Your task to perform on an android device: turn off data saver in the chrome app Image 0: 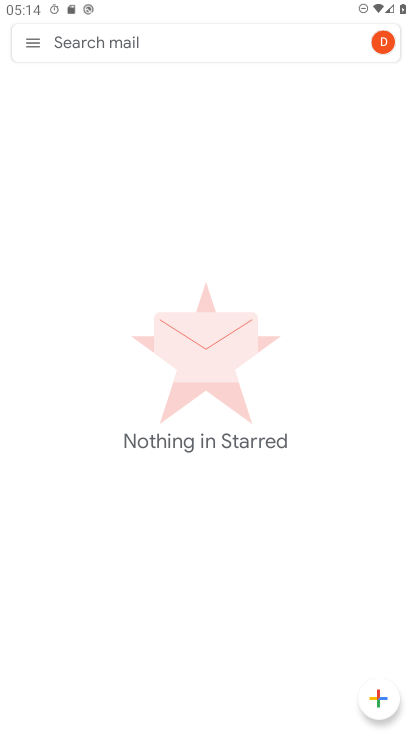
Step 0: press home button
Your task to perform on an android device: turn off data saver in the chrome app Image 1: 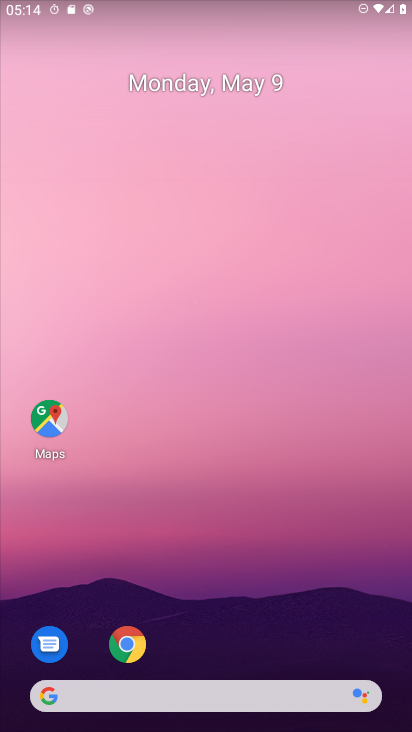
Step 1: click (125, 643)
Your task to perform on an android device: turn off data saver in the chrome app Image 2: 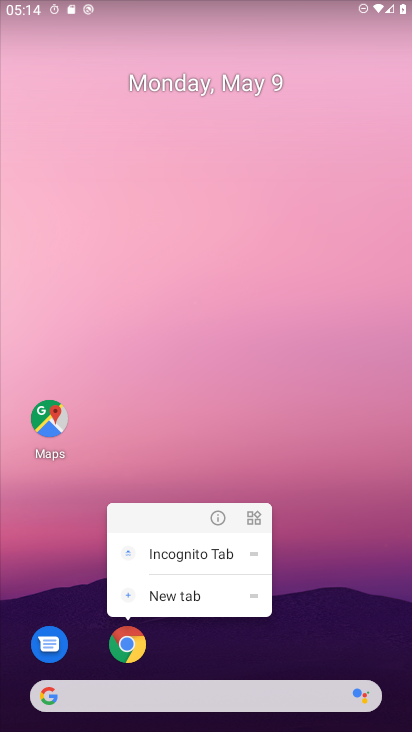
Step 2: click (132, 642)
Your task to perform on an android device: turn off data saver in the chrome app Image 3: 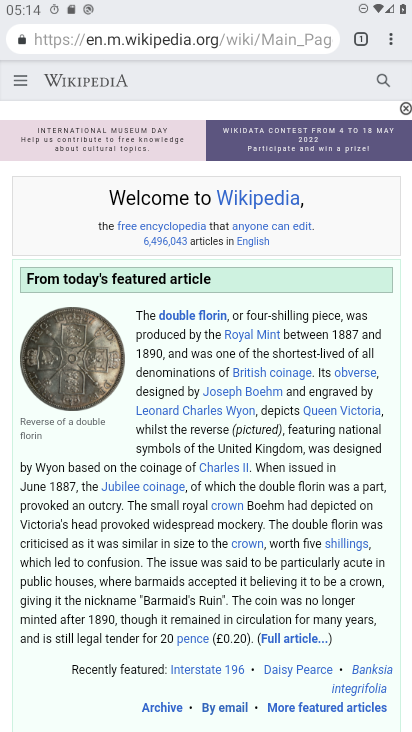
Step 3: click (391, 39)
Your task to perform on an android device: turn off data saver in the chrome app Image 4: 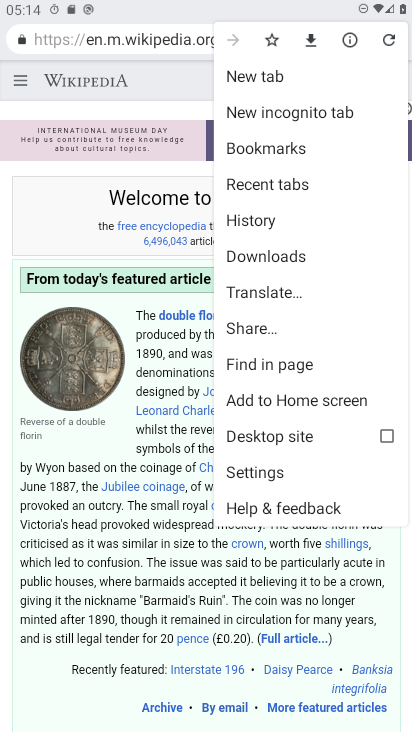
Step 4: click (272, 468)
Your task to perform on an android device: turn off data saver in the chrome app Image 5: 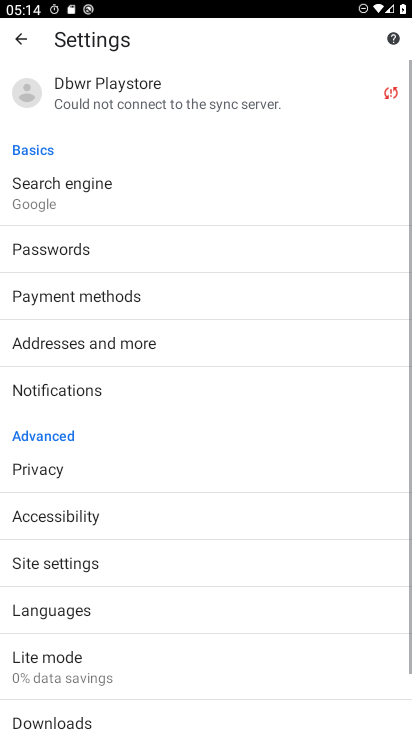
Step 5: drag from (166, 643) to (243, 392)
Your task to perform on an android device: turn off data saver in the chrome app Image 6: 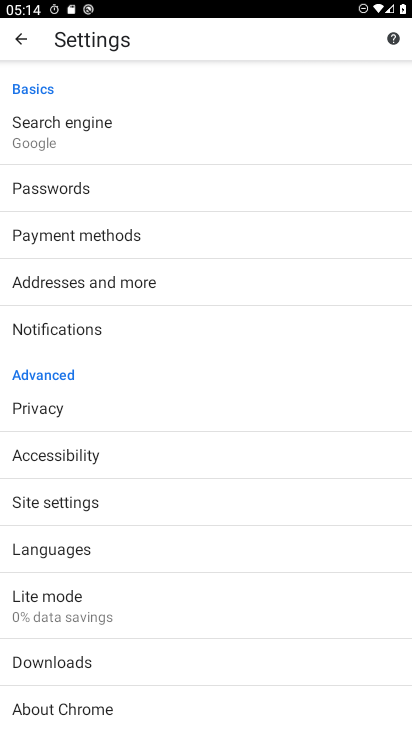
Step 6: click (66, 594)
Your task to perform on an android device: turn off data saver in the chrome app Image 7: 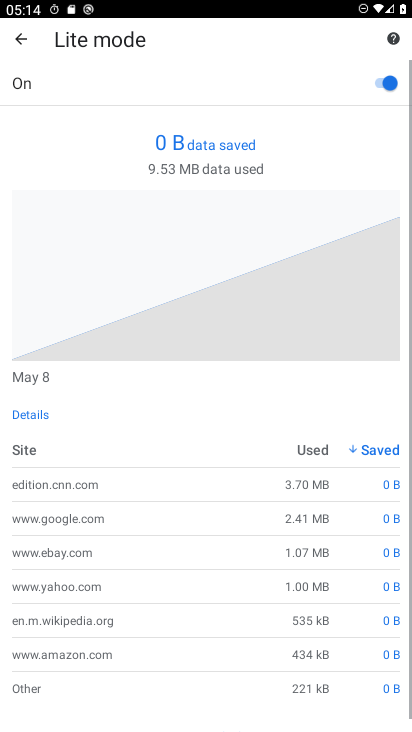
Step 7: click (391, 82)
Your task to perform on an android device: turn off data saver in the chrome app Image 8: 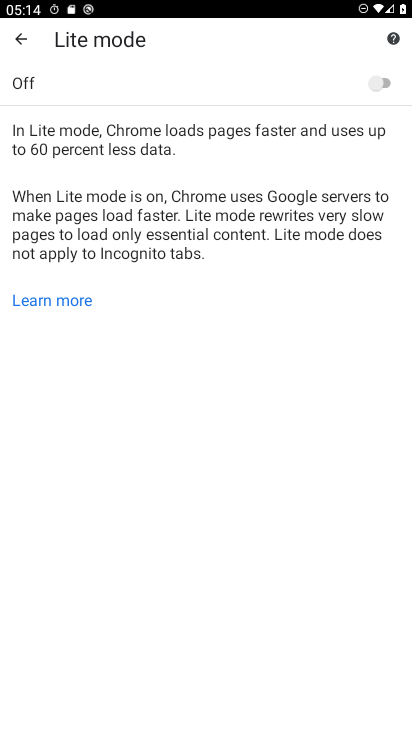
Step 8: task complete